Your task to perform on an android device: Go to battery settings Image 0: 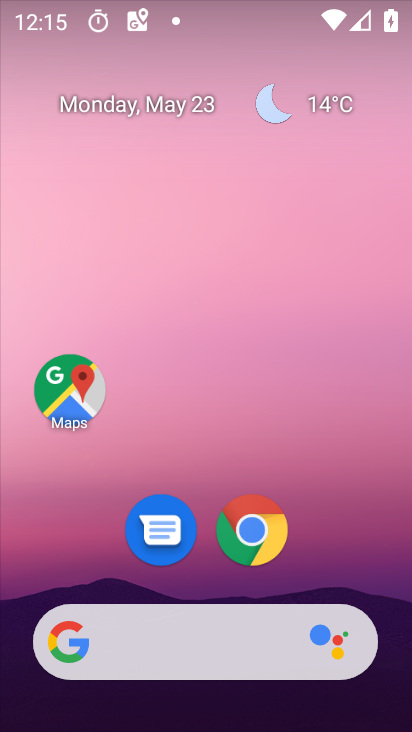
Step 0: drag from (394, 585) to (382, 231)
Your task to perform on an android device: Go to battery settings Image 1: 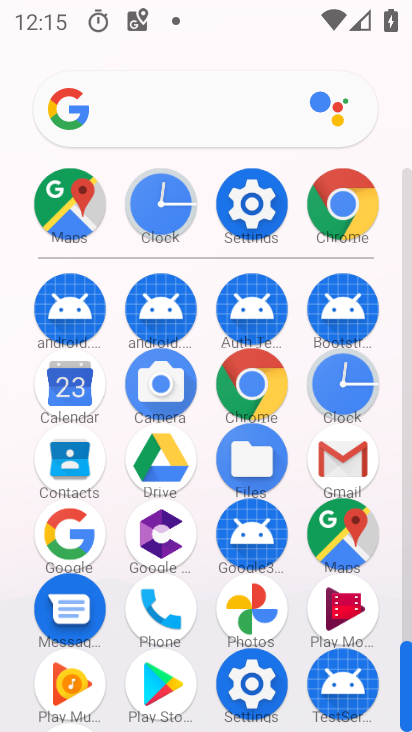
Step 1: click (244, 683)
Your task to perform on an android device: Go to battery settings Image 2: 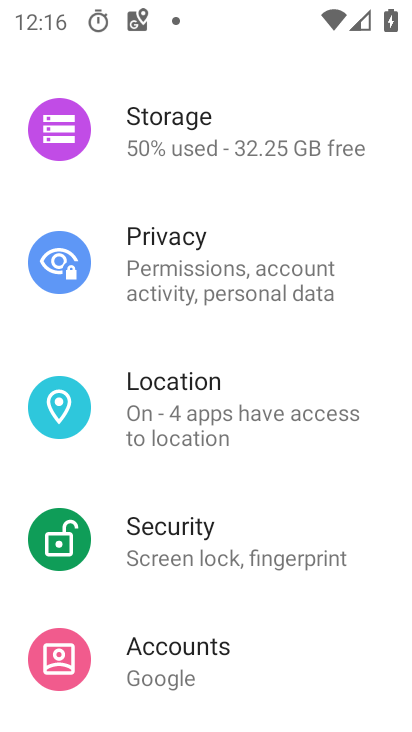
Step 2: drag from (328, 397) to (344, 221)
Your task to perform on an android device: Go to battery settings Image 3: 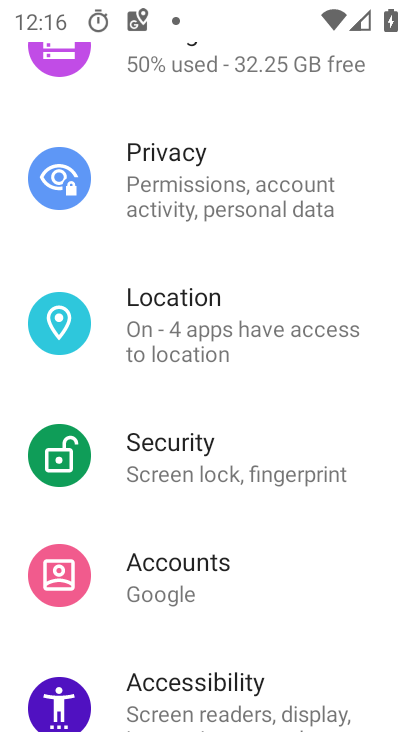
Step 3: drag from (336, 678) to (329, 359)
Your task to perform on an android device: Go to battery settings Image 4: 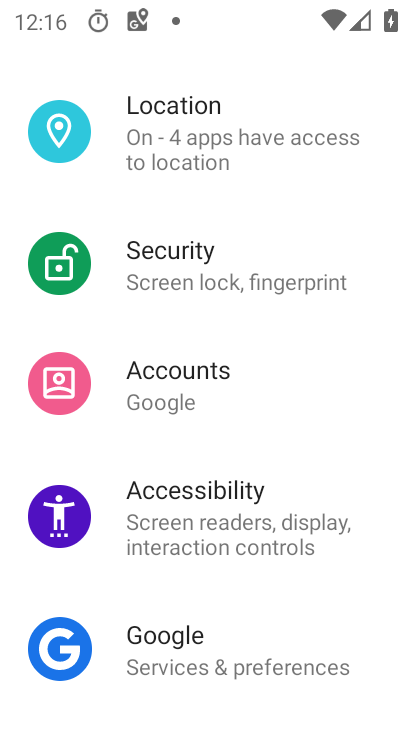
Step 4: drag from (336, 685) to (344, 358)
Your task to perform on an android device: Go to battery settings Image 5: 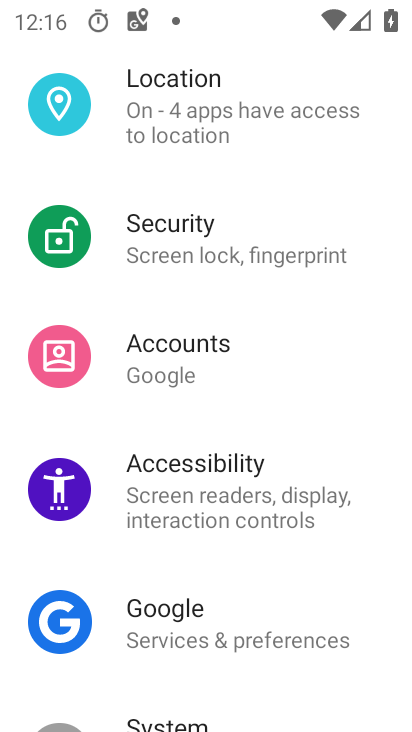
Step 5: drag from (282, 162) to (257, 522)
Your task to perform on an android device: Go to battery settings Image 6: 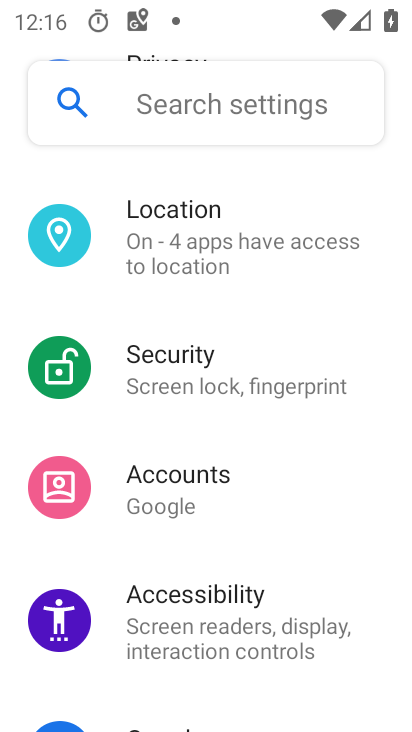
Step 6: drag from (293, 166) to (294, 527)
Your task to perform on an android device: Go to battery settings Image 7: 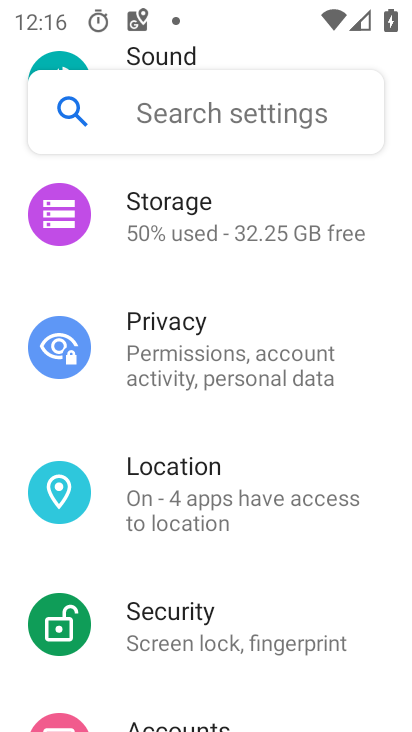
Step 7: drag from (328, 274) to (337, 524)
Your task to perform on an android device: Go to battery settings Image 8: 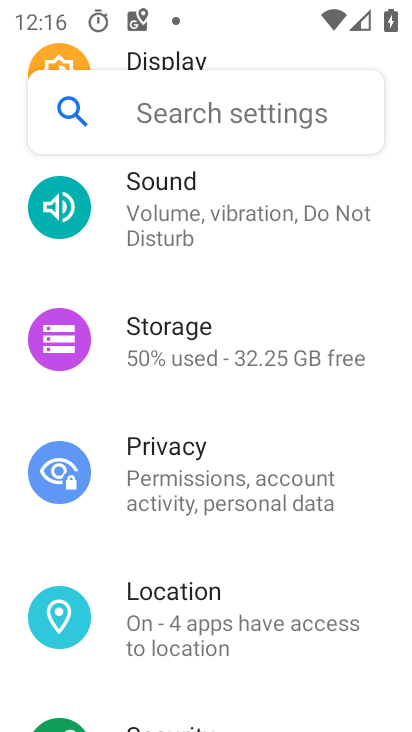
Step 8: drag from (379, 170) to (389, 381)
Your task to perform on an android device: Go to battery settings Image 9: 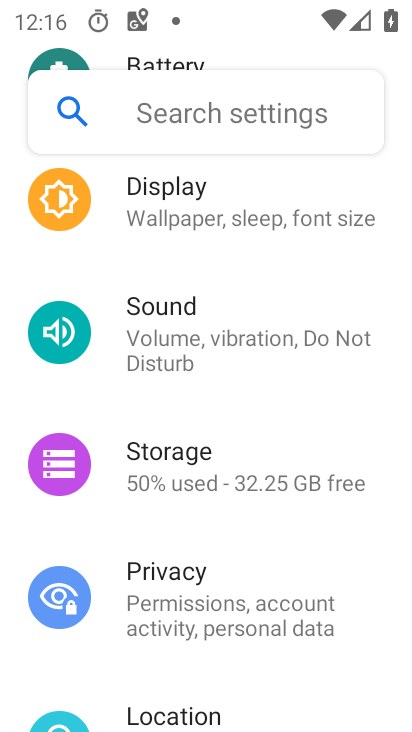
Step 9: drag from (318, 217) to (310, 555)
Your task to perform on an android device: Go to battery settings Image 10: 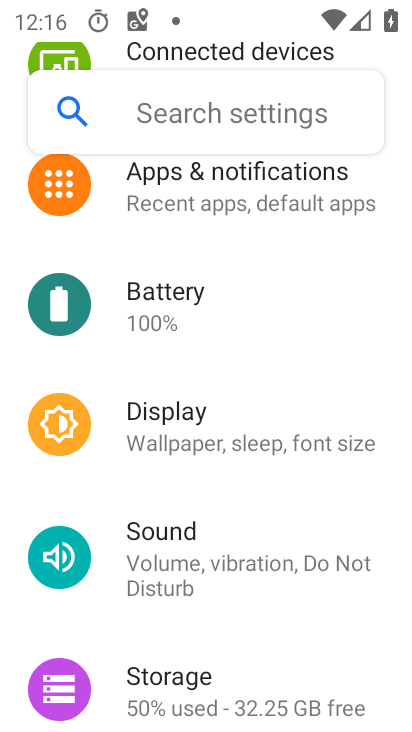
Step 10: click (140, 308)
Your task to perform on an android device: Go to battery settings Image 11: 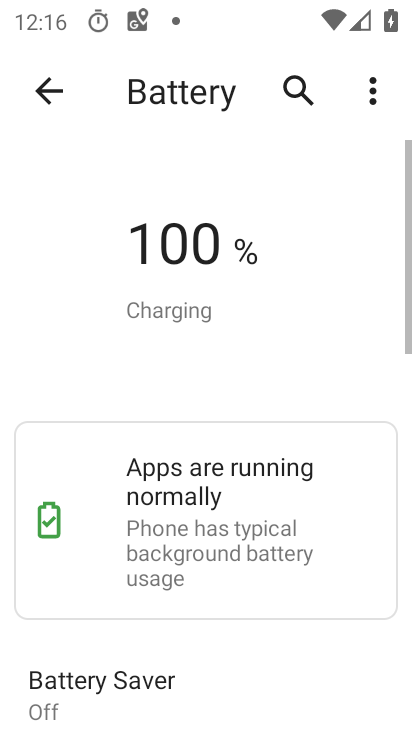
Step 11: click (374, 74)
Your task to perform on an android device: Go to battery settings Image 12: 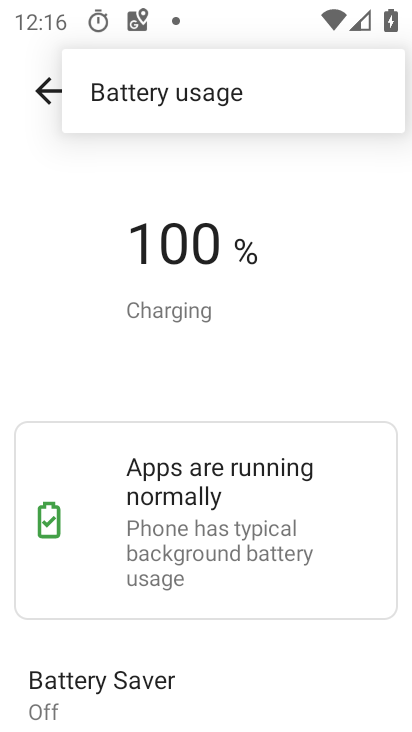
Step 12: click (258, 181)
Your task to perform on an android device: Go to battery settings Image 13: 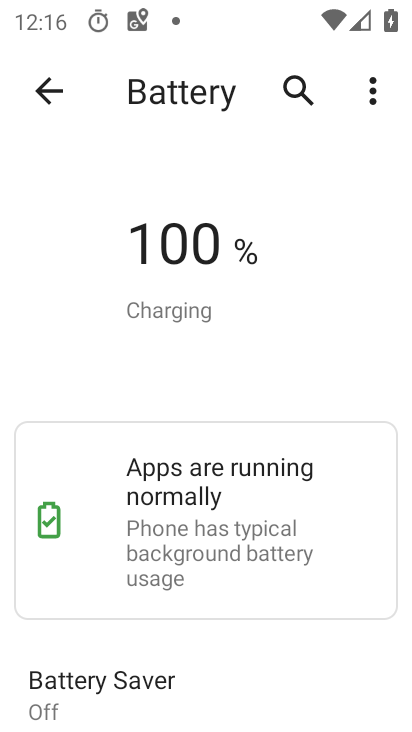
Step 13: task complete